Your task to perform on an android device: turn off wifi Image 0: 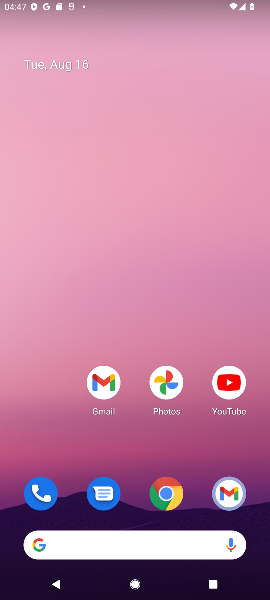
Step 0: press home button
Your task to perform on an android device: turn off wifi Image 1: 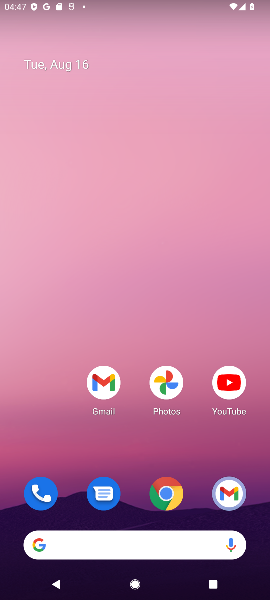
Step 1: drag from (65, 403) to (86, 146)
Your task to perform on an android device: turn off wifi Image 2: 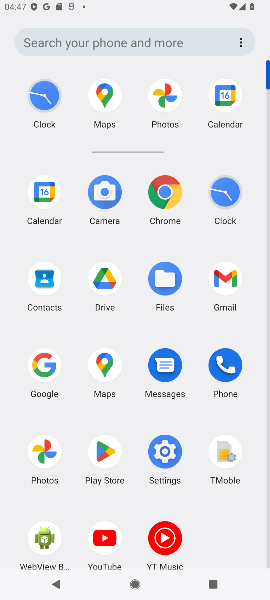
Step 2: click (164, 450)
Your task to perform on an android device: turn off wifi Image 3: 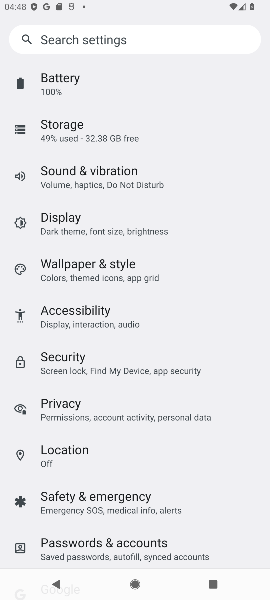
Step 3: drag from (232, 104) to (231, 234)
Your task to perform on an android device: turn off wifi Image 4: 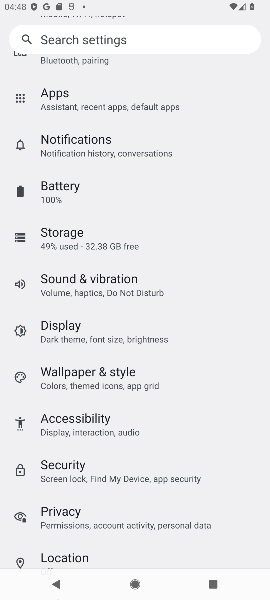
Step 4: drag from (227, 75) to (225, 256)
Your task to perform on an android device: turn off wifi Image 5: 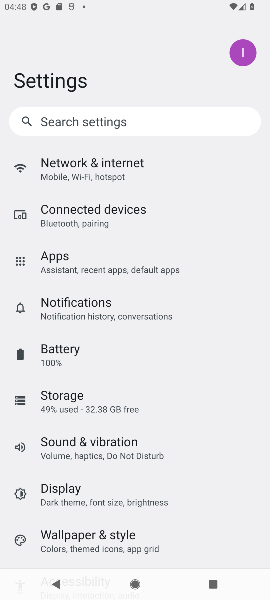
Step 5: click (163, 177)
Your task to perform on an android device: turn off wifi Image 6: 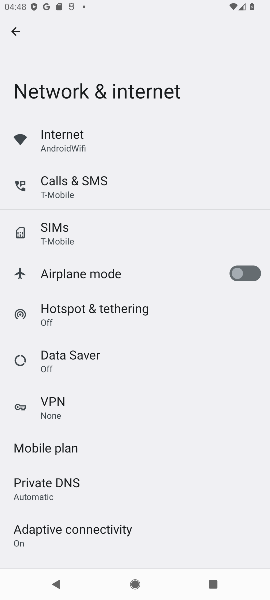
Step 6: drag from (183, 358) to (192, 194)
Your task to perform on an android device: turn off wifi Image 7: 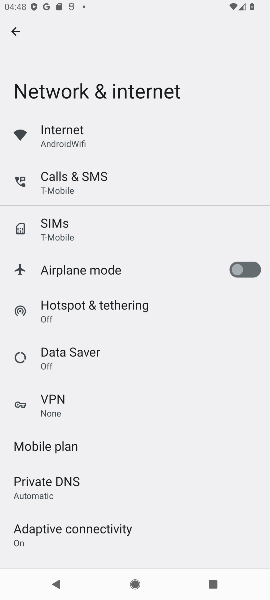
Step 7: drag from (176, 372) to (196, 225)
Your task to perform on an android device: turn off wifi Image 8: 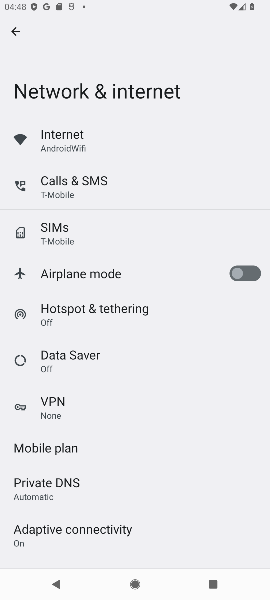
Step 8: click (87, 143)
Your task to perform on an android device: turn off wifi Image 9: 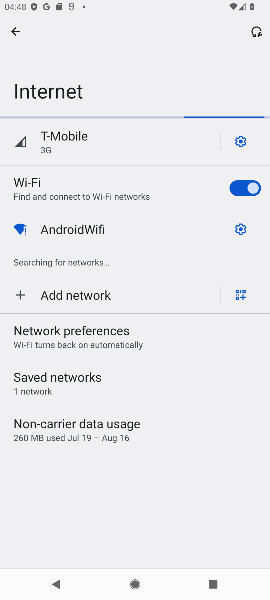
Step 9: click (245, 188)
Your task to perform on an android device: turn off wifi Image 10: 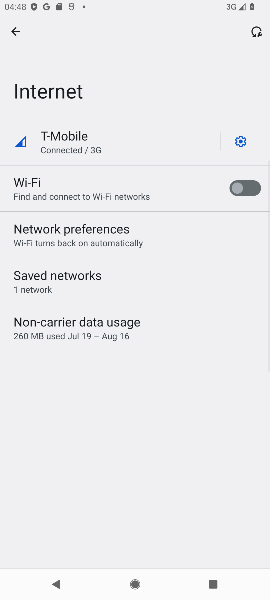
Step 10: task complete